Your task to perform on an android device: open app "Facebook" Image 0: 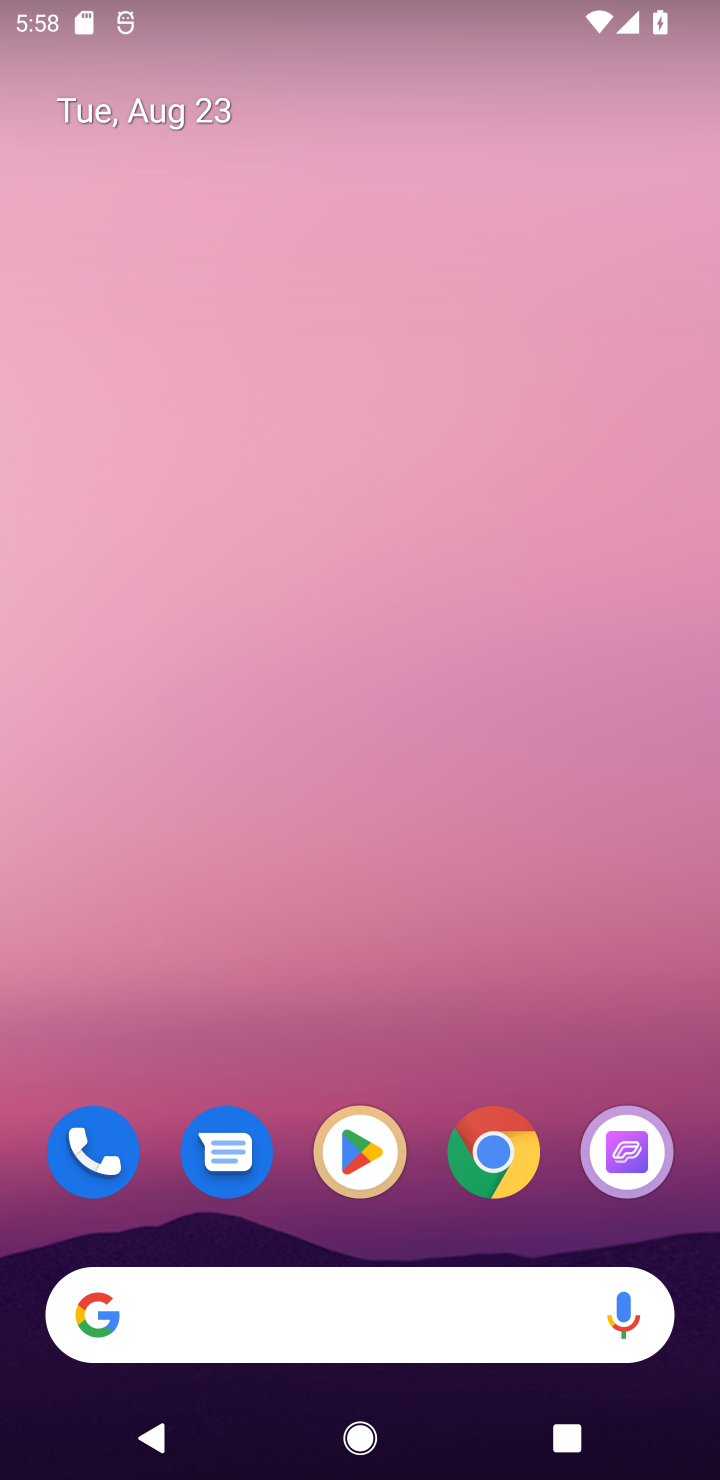
Step 0: click (350, 1143)
Your task to perform on an android device: open app "Facebook" Image 1: 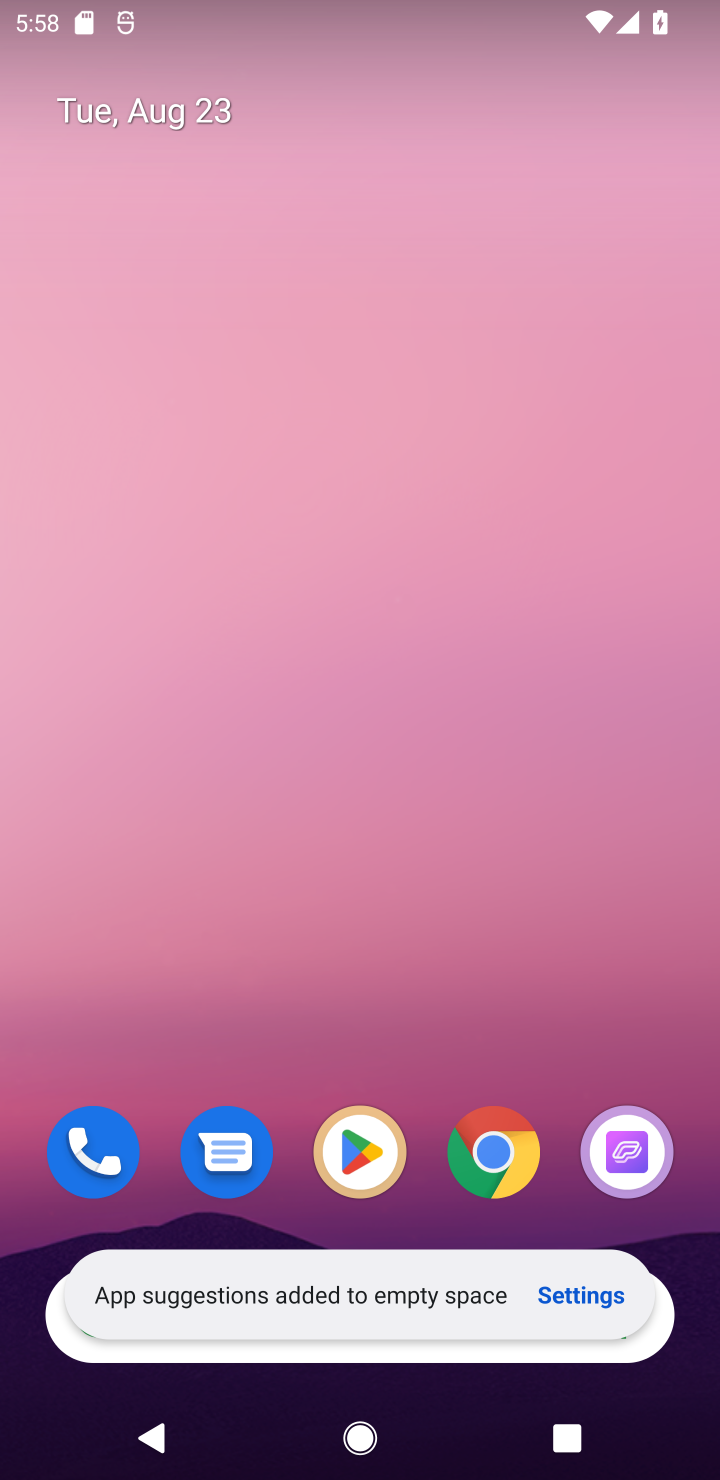
Step 1: click (379, 1138)
Your task to perform on an android device: open app "Facebook" Image 2: 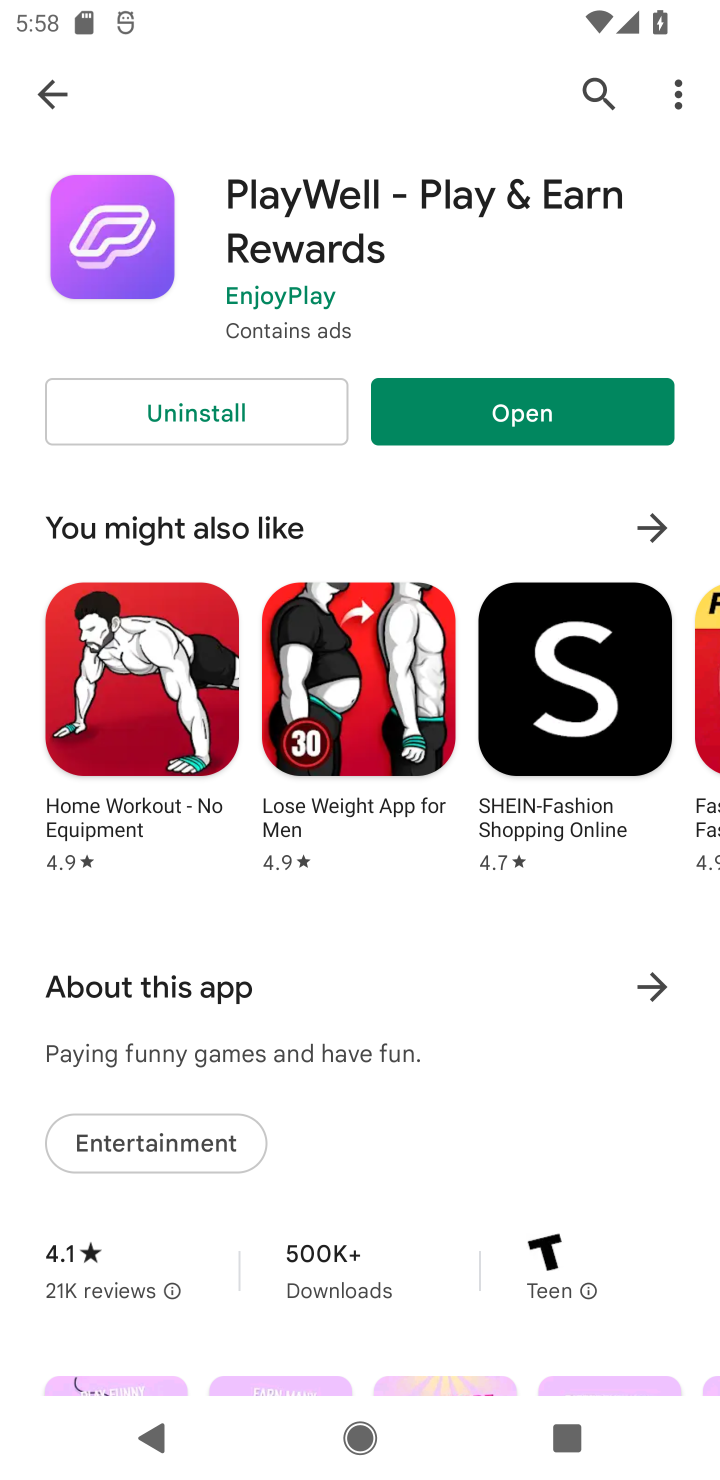
Step 2: click (600, 89)
Your task to perform on an android device: open app "Facebook" Image 3: 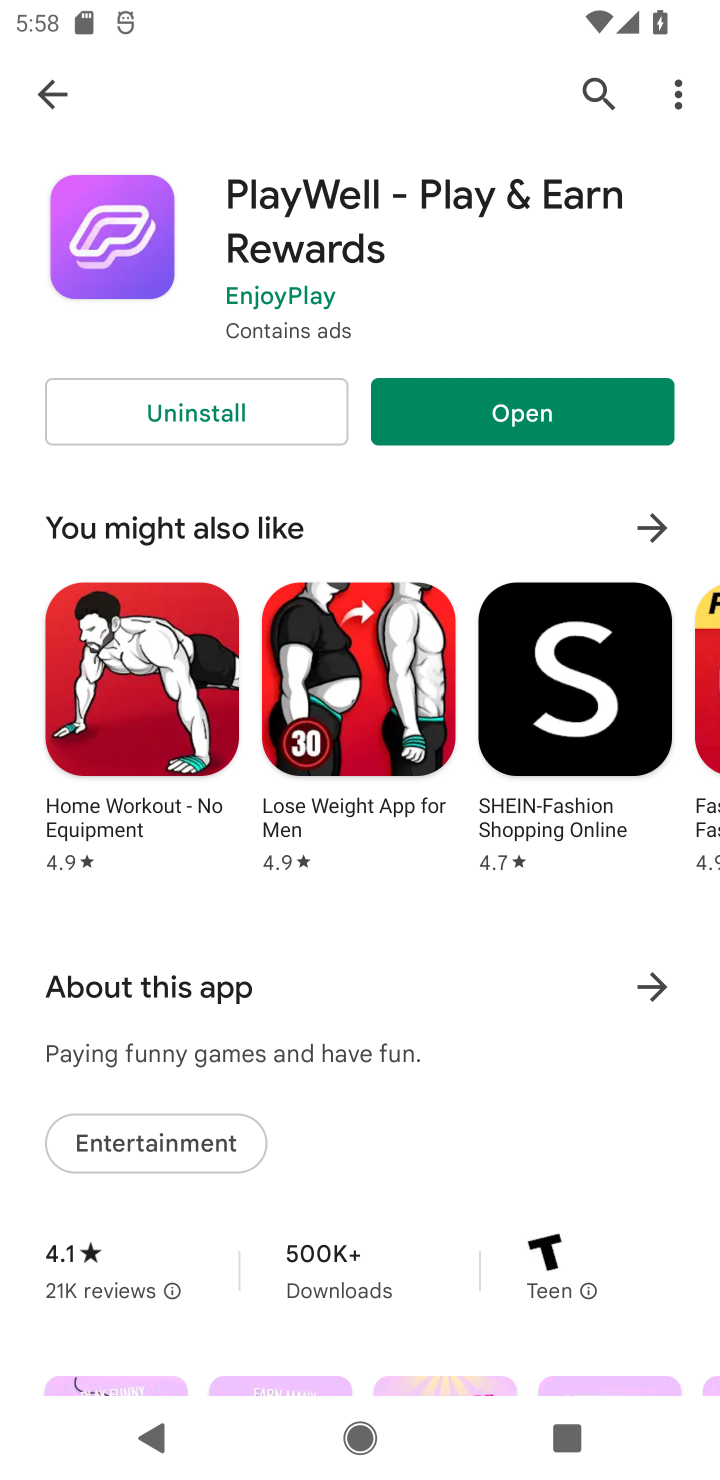
Step 3: click (596, 98)
Your task to perform on an android device: open app "Facebook" Image 4: 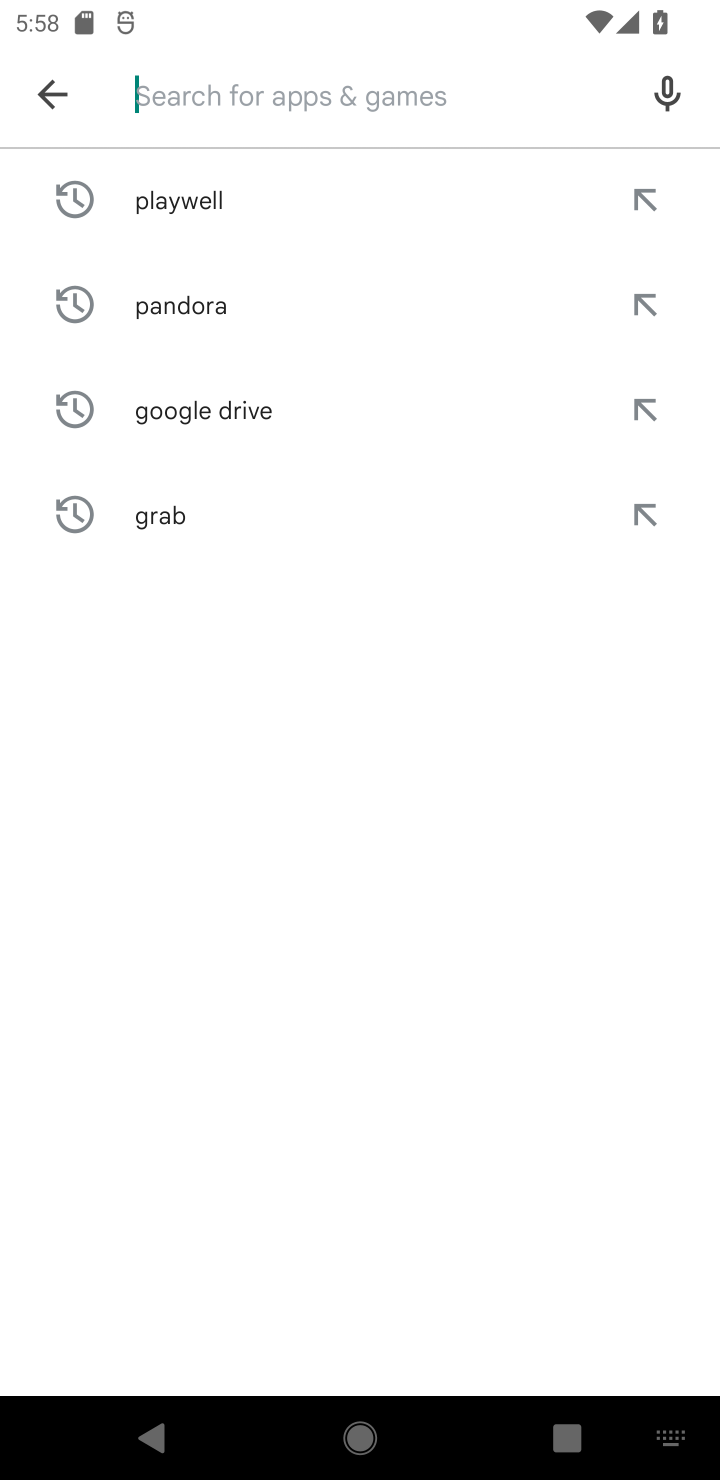
Step 4: click (245, 101)
Your task to perform on an android device: open app "Facebook" Image 5: 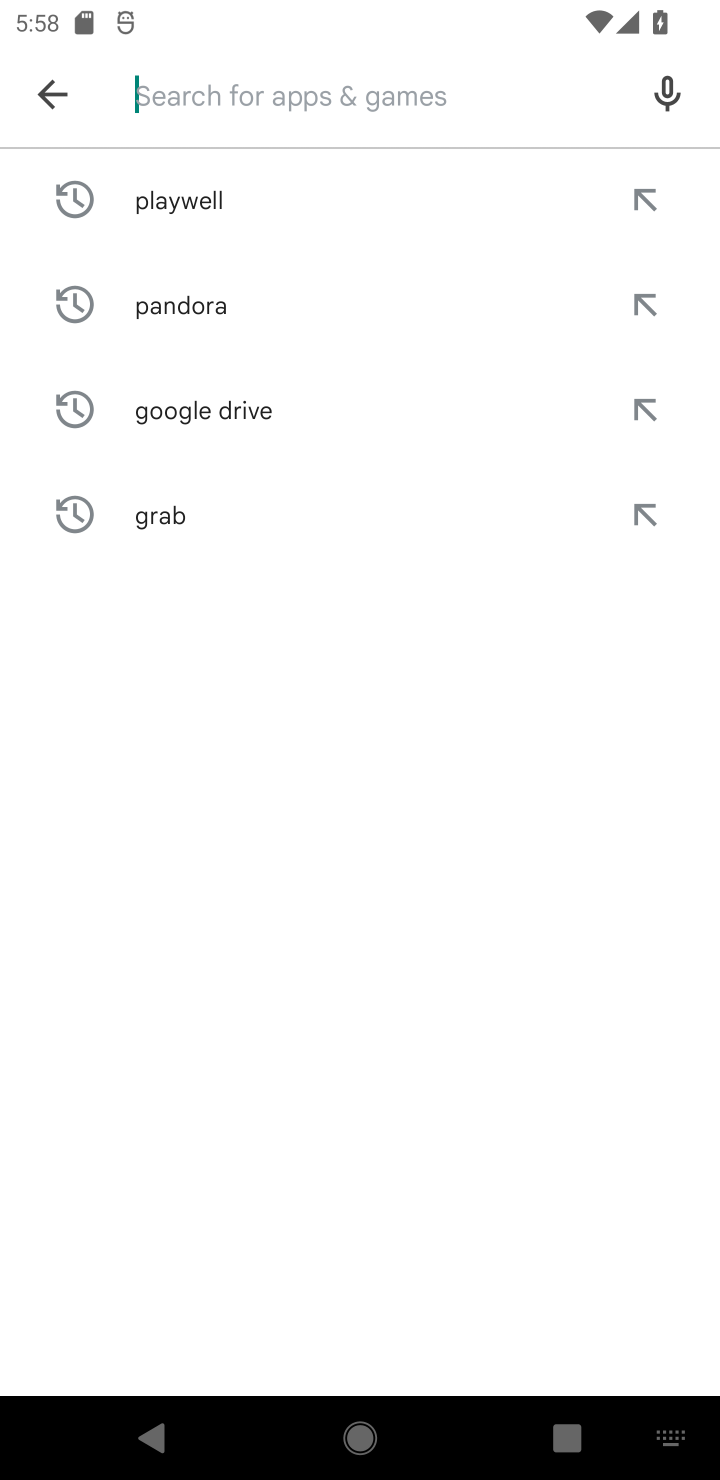
Step 5: type "Facebook"
Your task to perform on an android device: open app "Facebook" Image 6: 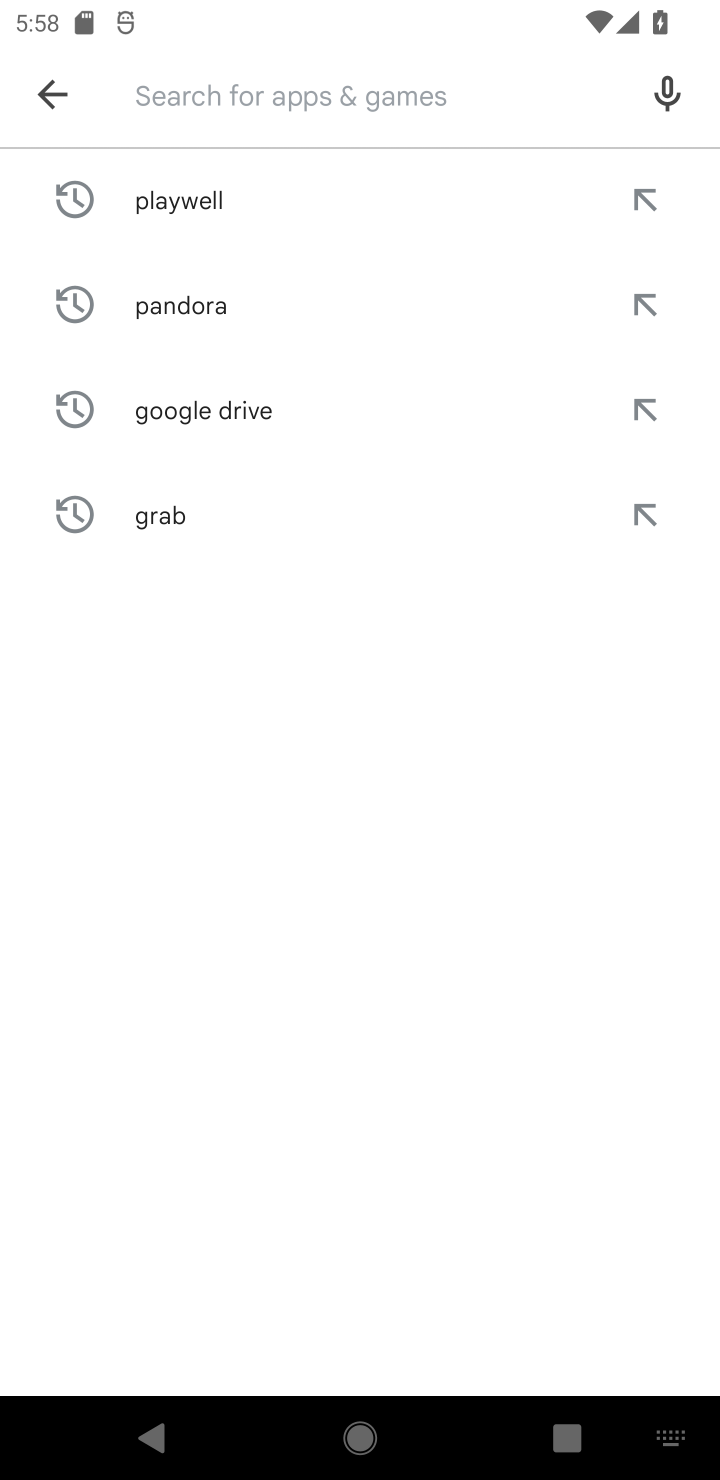
Step 6: click (490, 1050)
Your task to perform on an android device: open app "Facebook" Image 7: 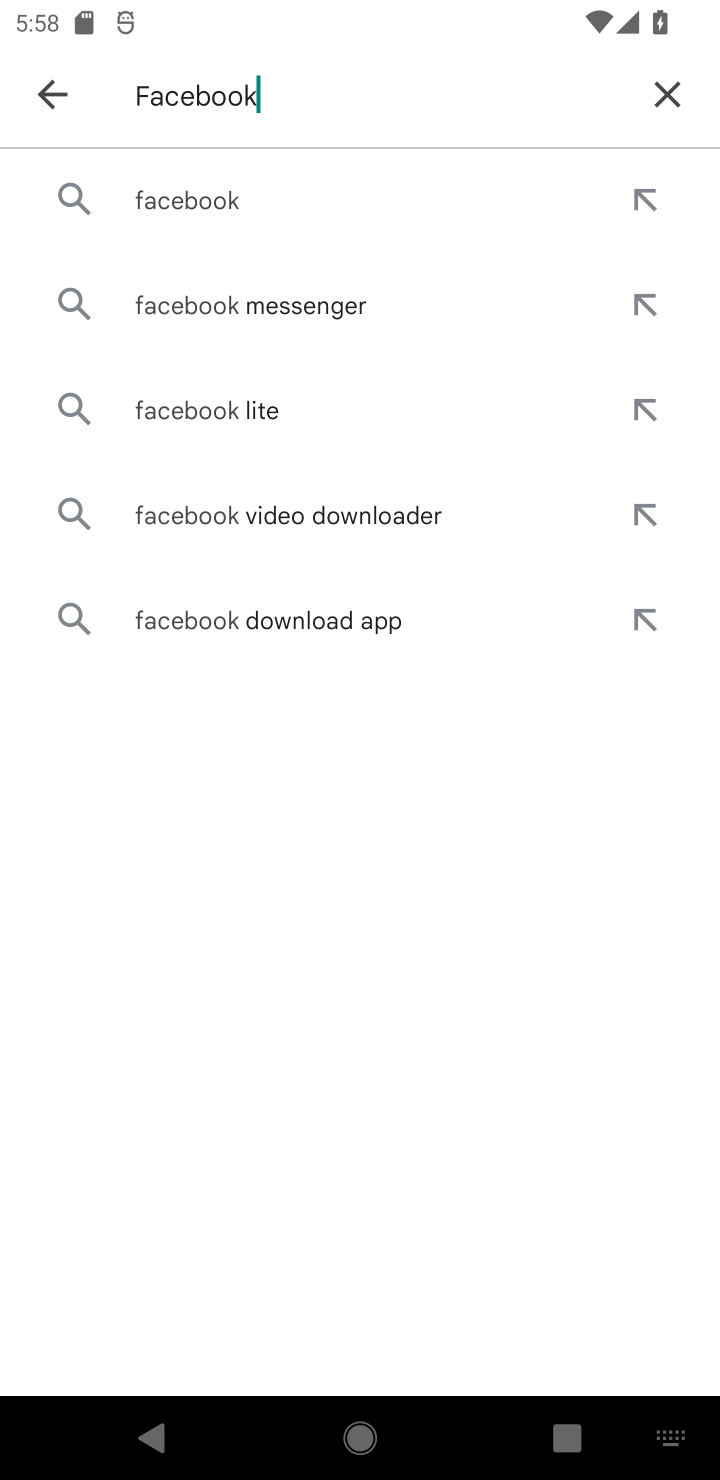
Step 7: click (220, 208)
Your task to perform on an android device: open app "Facebook" Image 8: 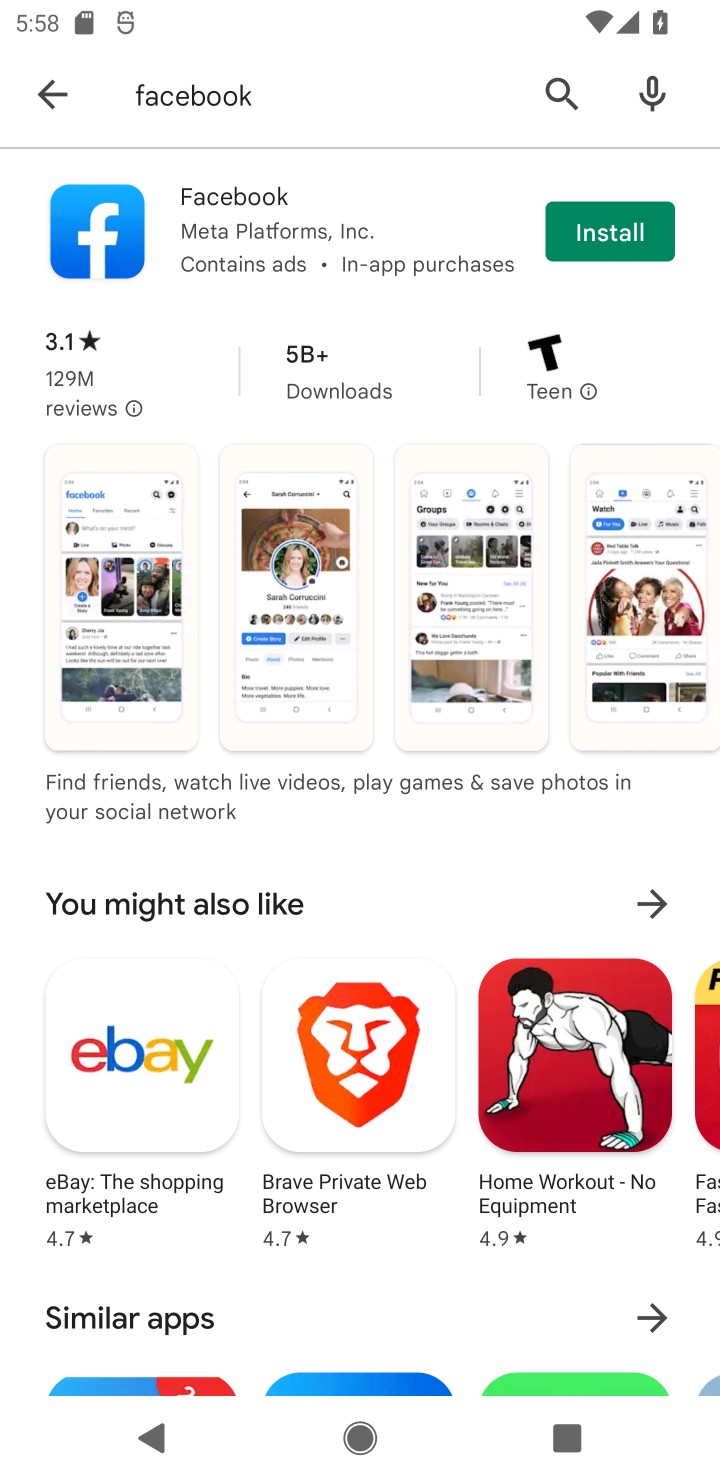
Step 8: task complete